Your task to perform on an android device: turn off location Image 0: 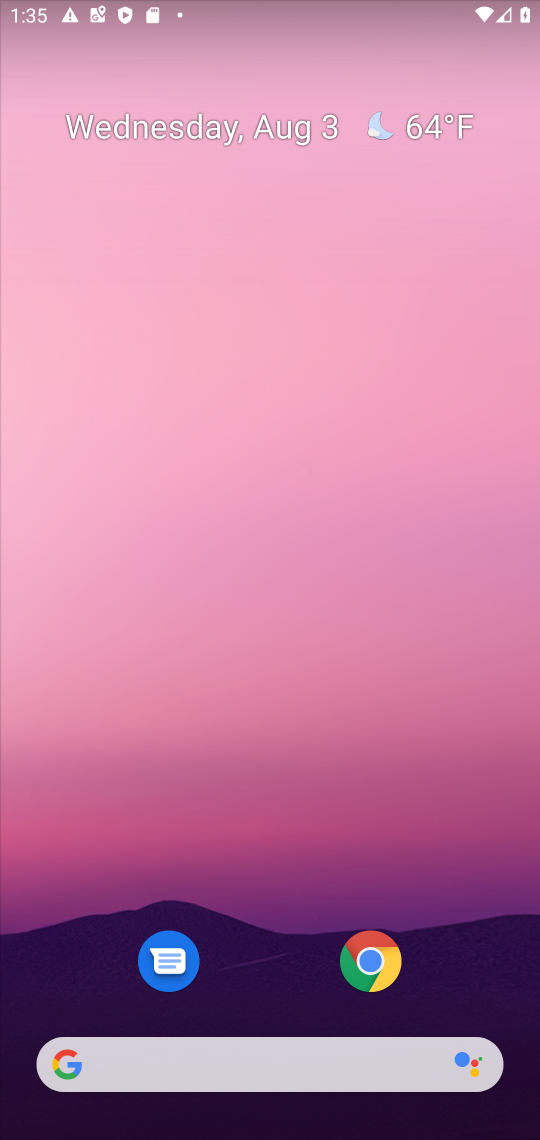
Step 0: drag from (263, 926) to (275, 55)
Your task to perform on an android device: turn off location Image 1: 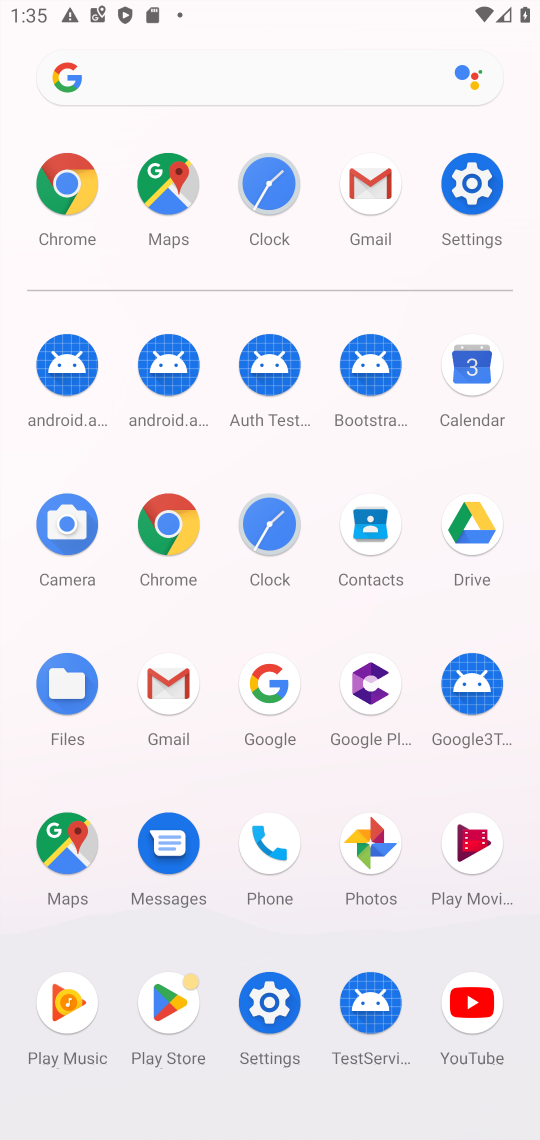
Step 1: click (463, 182)
Your task to perform on an android device: turn off location Image 2: 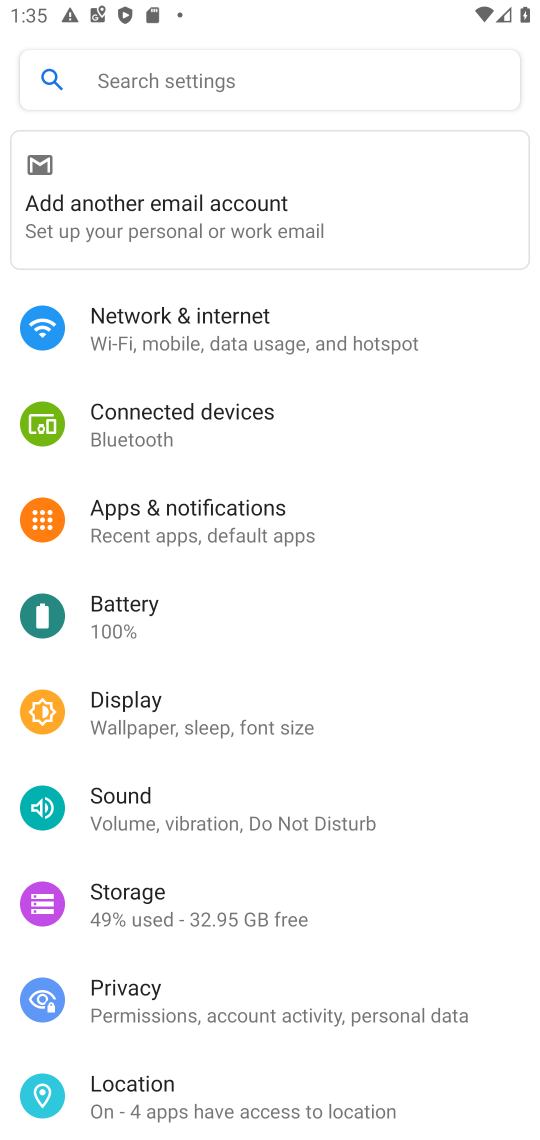
Step 2: click (145, 1088)
Your task to perform on an android device: turn off location Image 3: 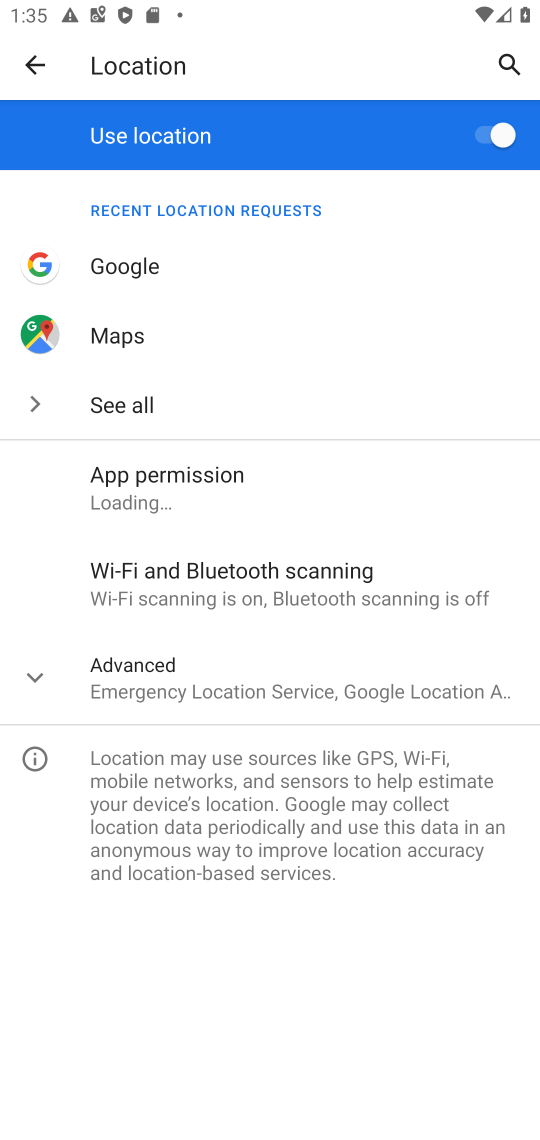
Step 3: click (498, 141)
Your task to perform on an android device: turn off location Image 4: 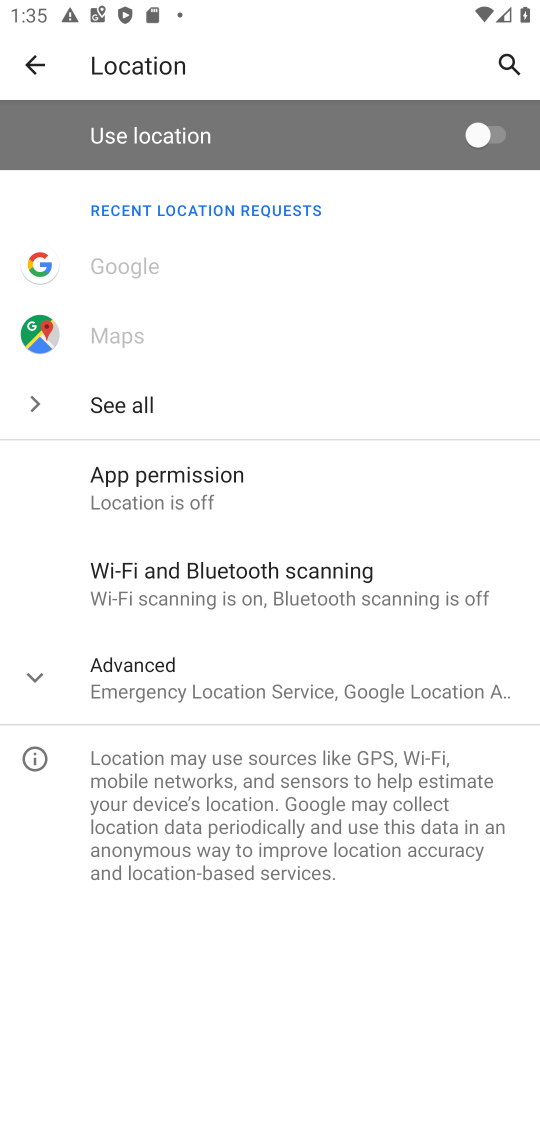
Step 4: task complete